Your task to perform on an android device: make emails show in primary in the gmail app Image 0: 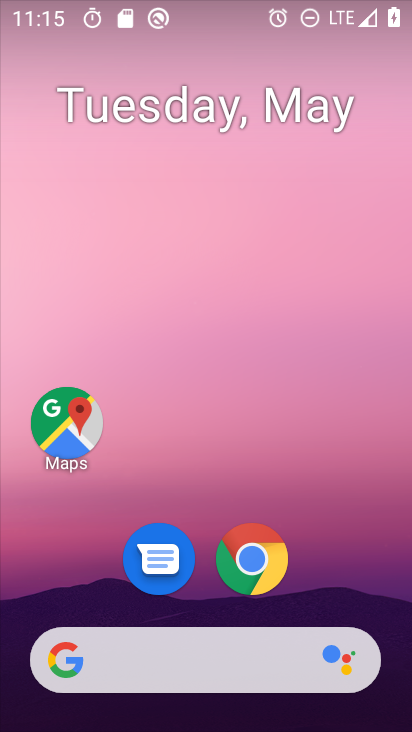
Step 0: drag from (408, 331) to (355, 21)
Your task to perform on an android device: make emails show in primary in the gmail app Image 1: 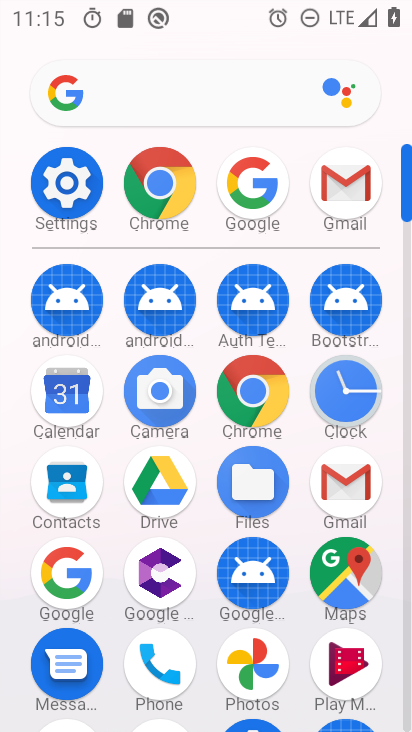
Step 1: click (350, 498)
Your task to perform on an android device: make emails show in primary in the gmail app Image 2: 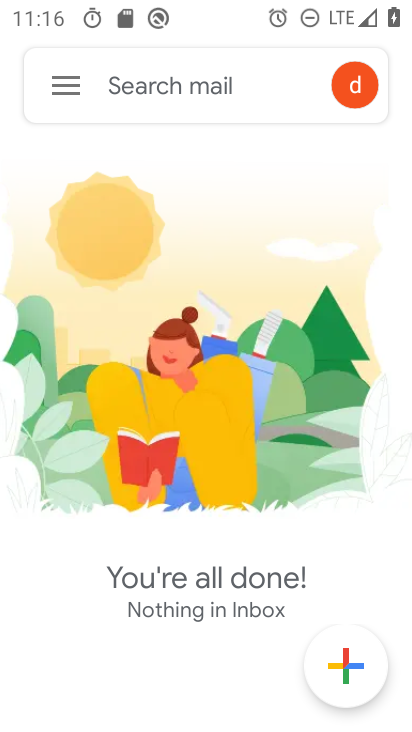
Step 2: task complete